Your task to perform on an android device: Go to Yahoo.com Image 0: 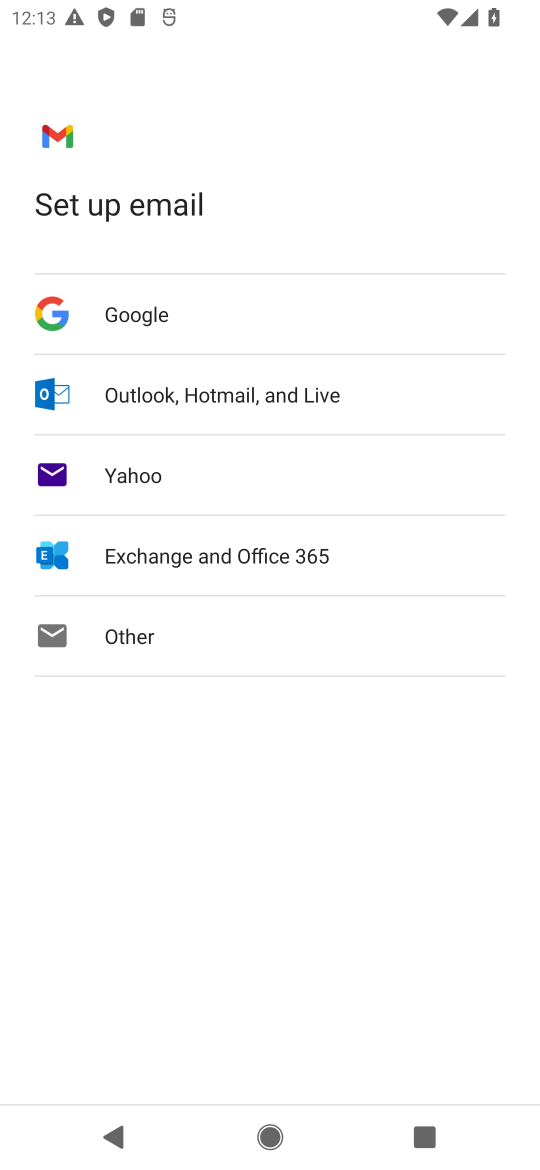
Step 0: press back button
Your task to perform on an android device: Go to Yahoo.com Image 1: 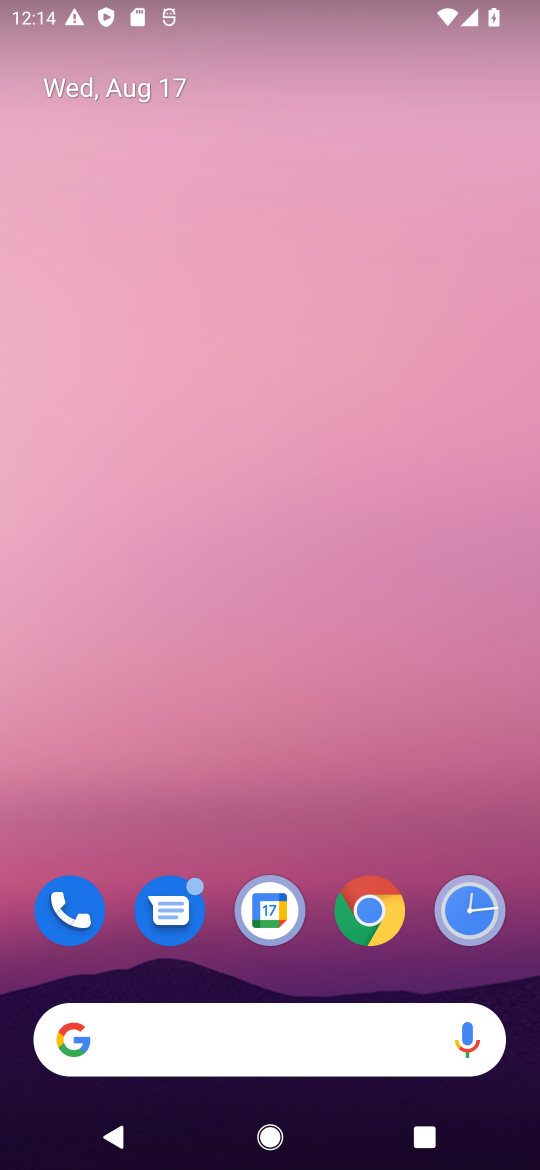
Step 1: click (361, 919)
Your task to perform on an android device: Go to Yahoo.com Image 2: 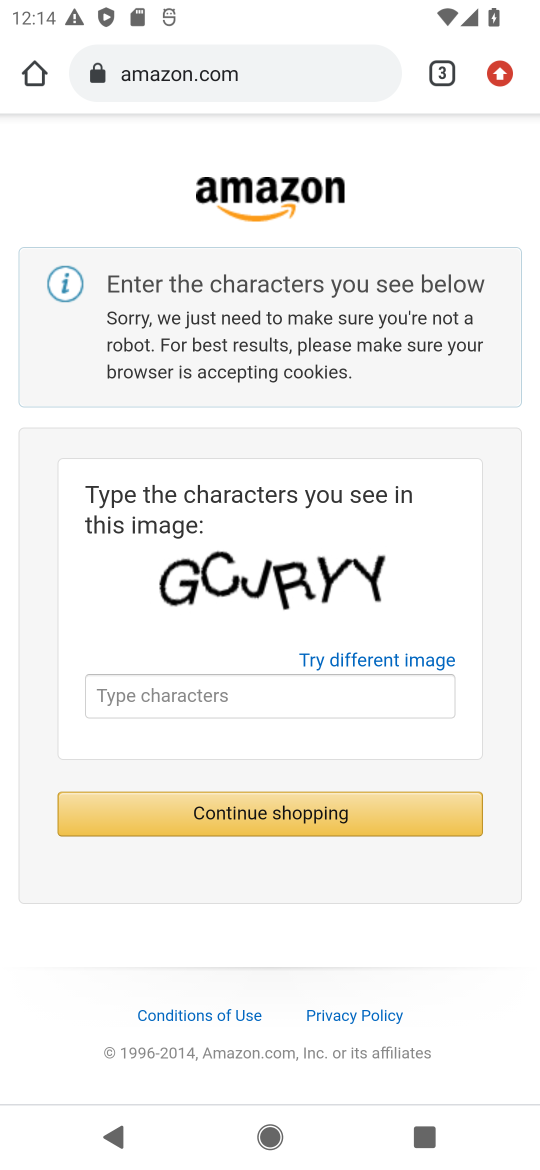
Step 2: click (429, 66)
Your task to perform on an android device: Go to Yahoo.com Image 3: 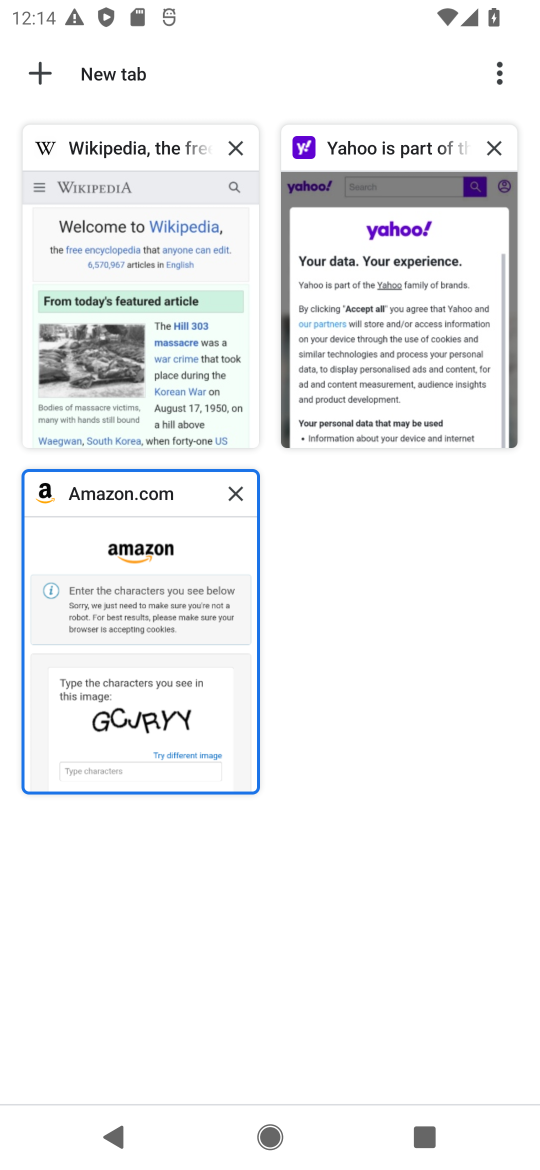
Step 3: click (419, 238)
Your task to perform on an android device: Go to Yahoo.com Image 4: 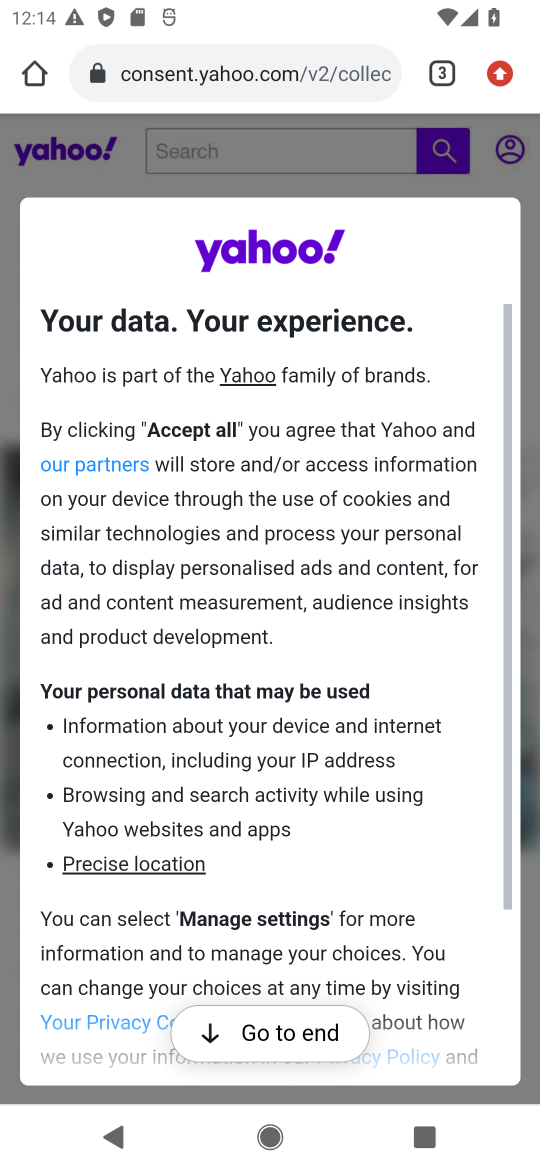
Step 4: task complete